Your task to perform on an android device: Open Google Maps Image 0: 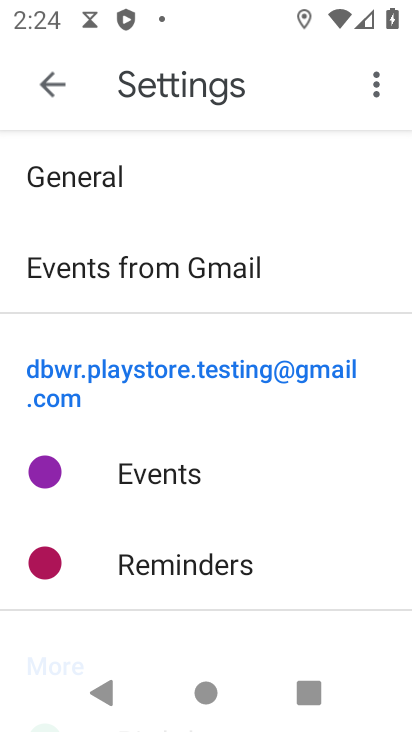
Step 0: press back button
Your task to perform on an android device: Open Google Maps Image 1: 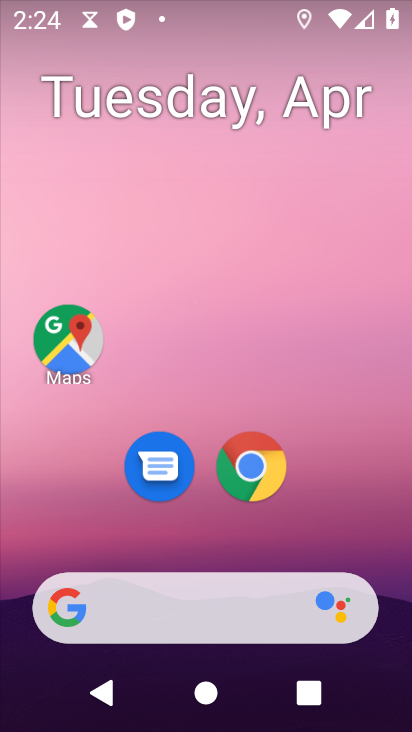
Step 1: drag from (368, 480) to (384, 92)
Your task to perform on an android device: Open Google Maps Image 2: 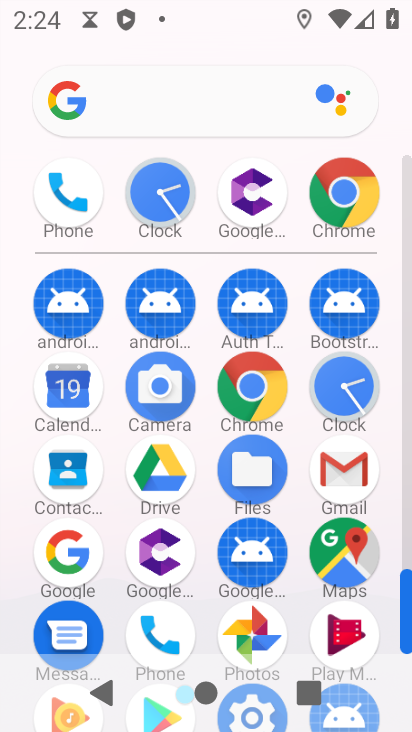
Step 2: drag from (8, 533) to (17, 299)
Your task to perform on an android device: Open Google Maps Image 3: 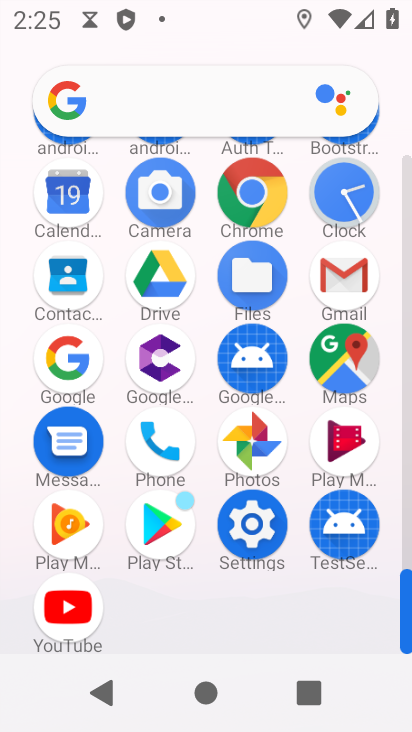
Step 3: click (350, 353)
Your task to perform on an android device: Open Google Maps Image 4: 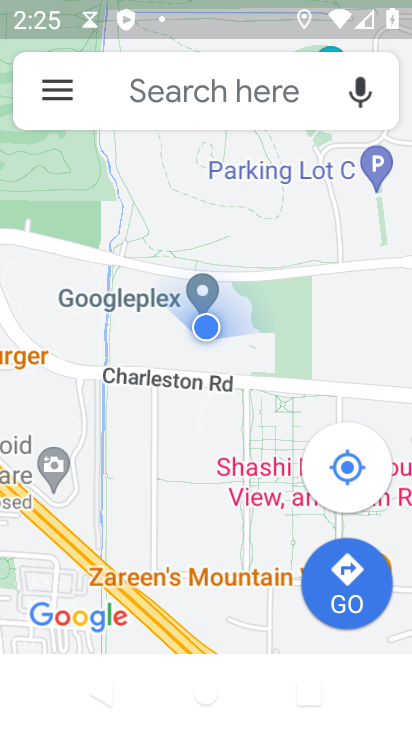
Step 4: task complete